Your task to perform on an android device: Open battery settings Image 0: 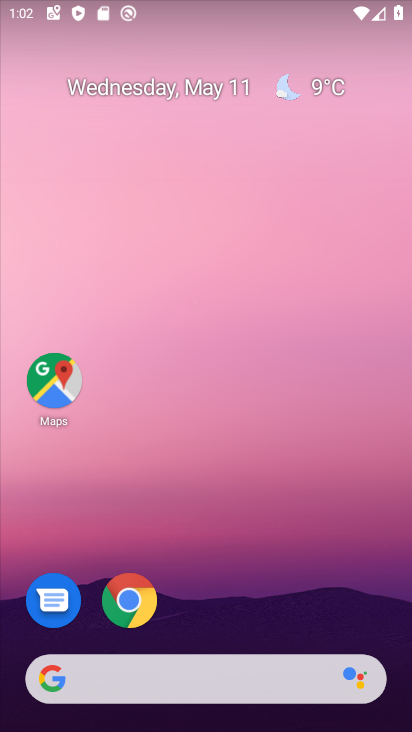
Step 0: drag from (252, 723) to (328, 206)
Your task to perform on an android device: Open battery settings Image 1: 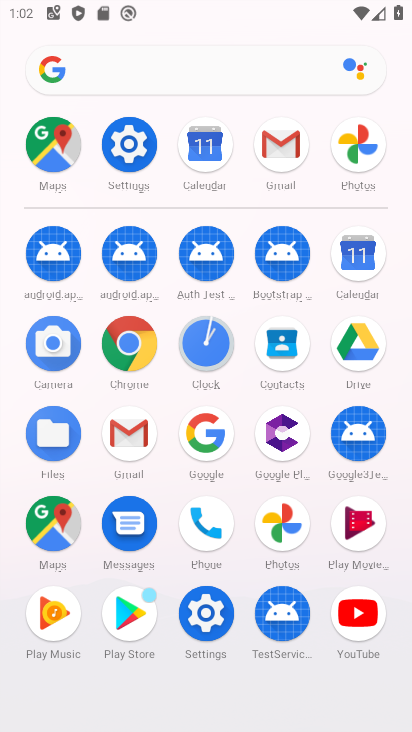
Step 1: click (139, 160)
Your task to perform on an android device: Open battery settings Image 2: 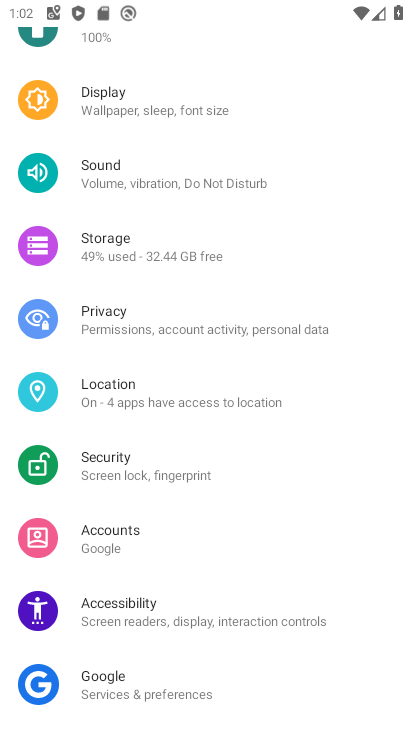
Step 2: drag from (319, 138) to (266, 559)
Your task to perform on an android device: Open battery settings Image 3: 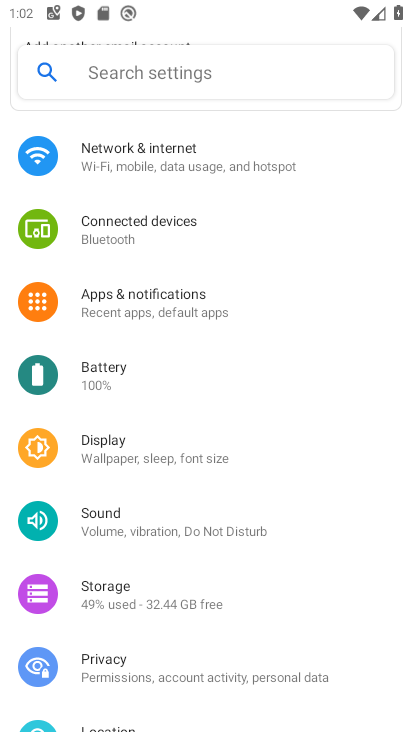
Step 3: drag from (342, 202) to (338, 636)
Your task to perform on an android device: Open battery settings Image 4: 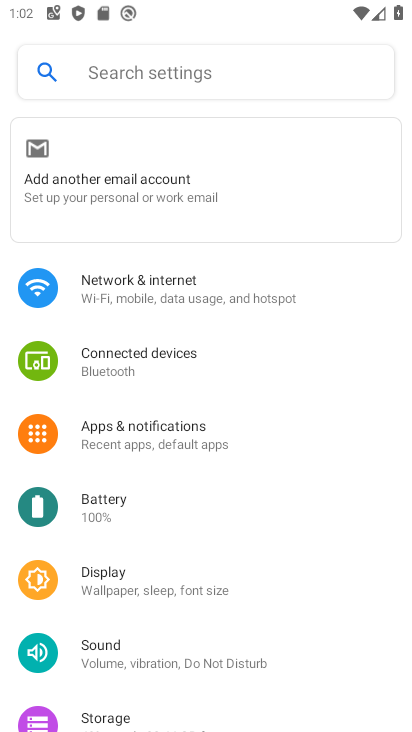
Step 4: click (97, 497)
Your task to perform on an android device: Open battery settings Image 5: 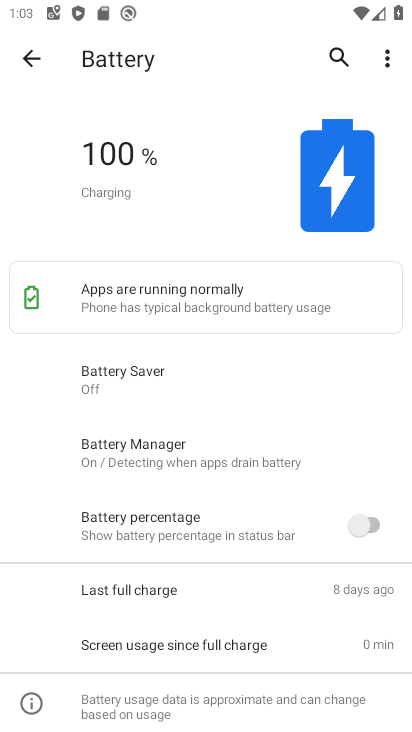
Step 5: task complete